Your task to perform on an android device: turn on wifi Image 0: 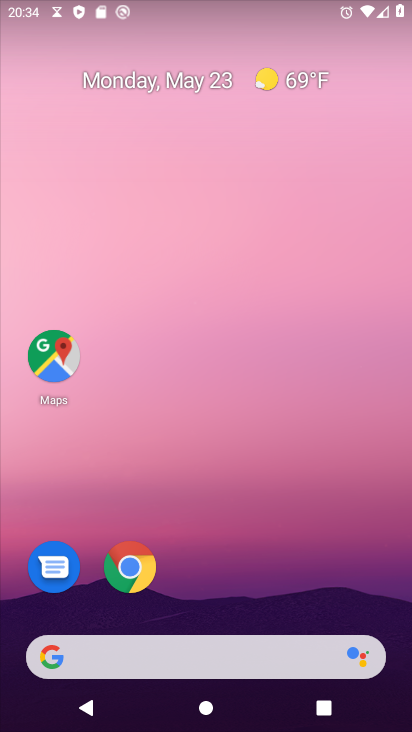
Step 0: drag from (242, 586) to (196, 2)
Your task to perform on an android device: turn on wifi Image 1: 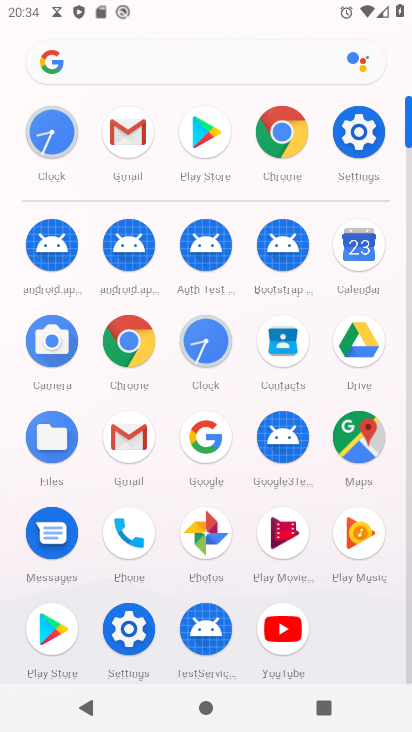
Step 1: click (356, 149)
Your task to perform on an android device: turn on wifi Image 2: 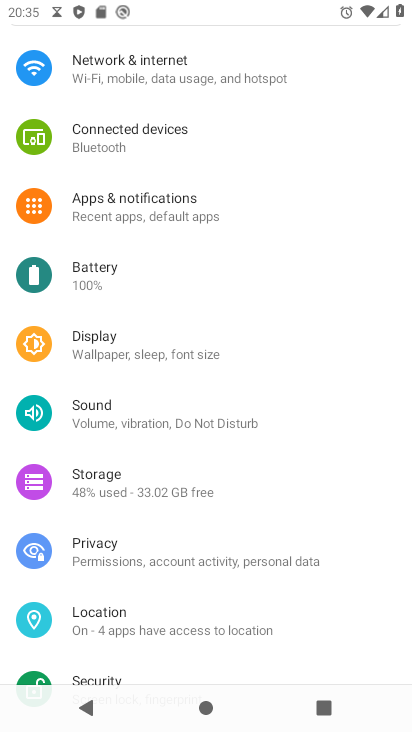
Step 2: click (194, 72)
Your task to perform on an android device: turn on wifi Image 3: 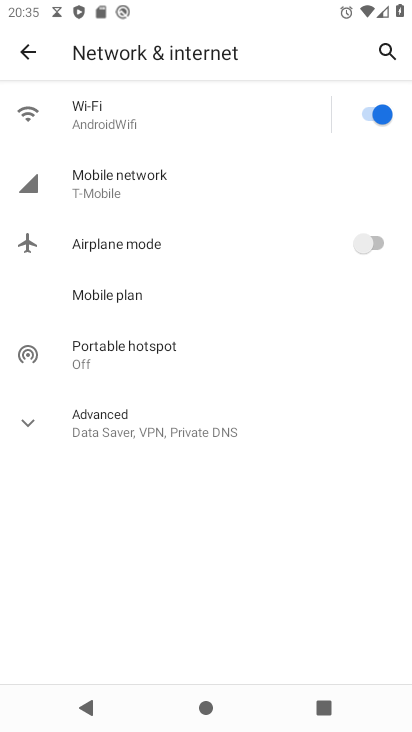
Step 3: task complete